Your task to perform on an android device: Search for seafood restaurants on Google Maps Image 0: 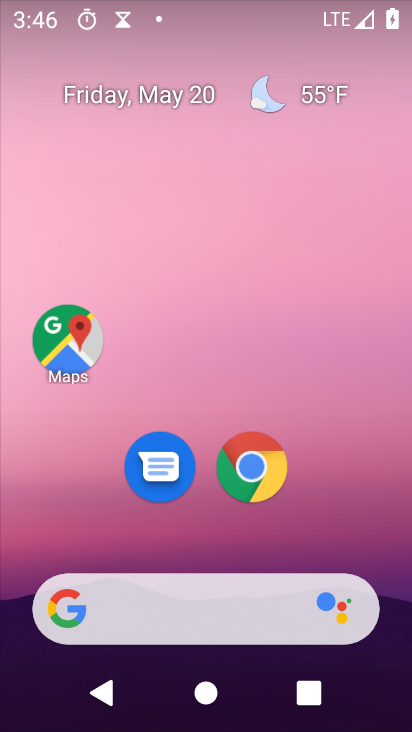
Step 0: click (67, 338)
Your task to perform on an android device: Search for seafood restaurants on Google Maps Image 1: 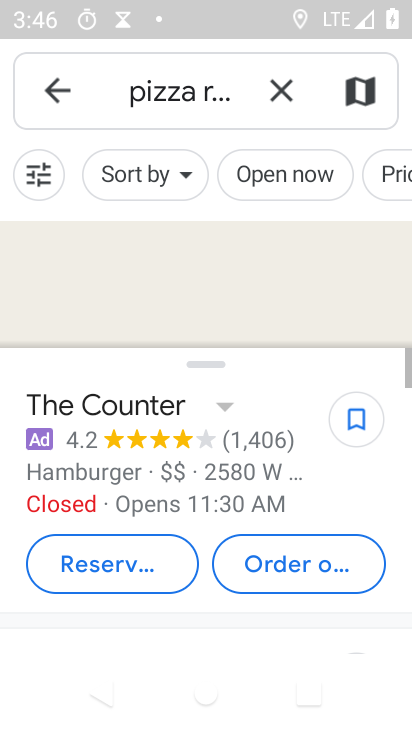
Step 1: click (277, 86)
Your task to perform on an android device: Search for seafood restaurants on Google Maps Image 2: 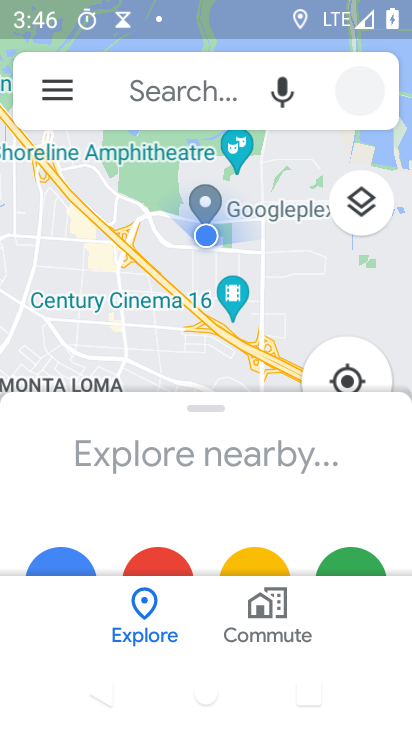
Step 2: click (177, 89)
Your task to perform on an android device: Search for seafood restaurants on Google Maps Image 3: 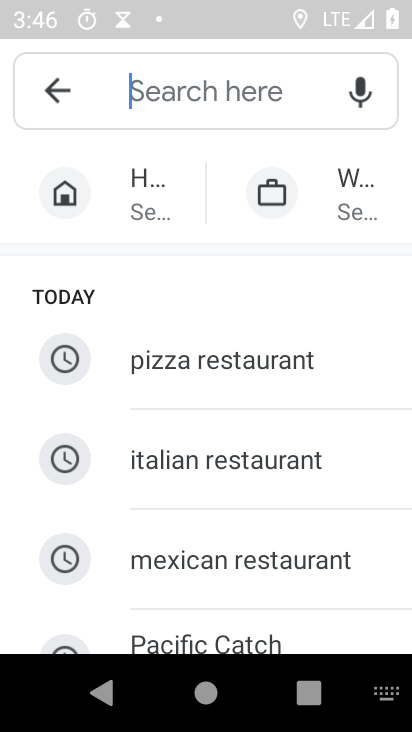
Step 3: type "seafood restaurant"
Your task to perform on an android device: Search for seafood restaurants on Google Maps Image 4: 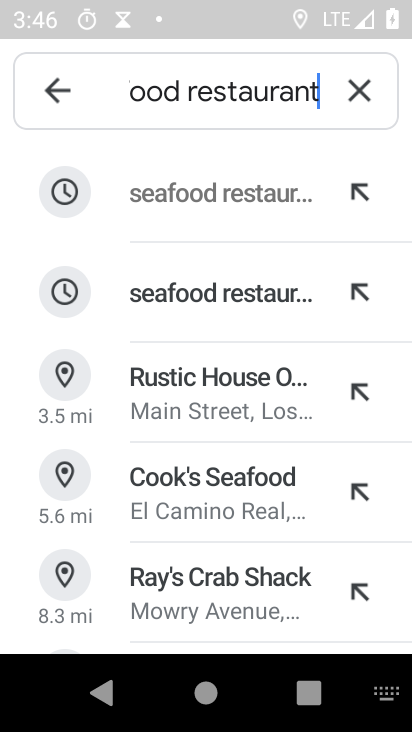
Step 4: click (139, 181)
Your task to perform on an android device: Search for seafood restaurants on Google Maps Image 5: 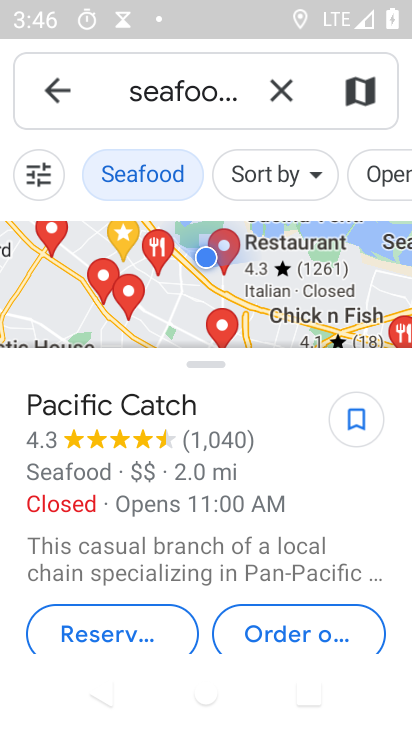
Step 5: task complete